Your task to perform on an android device: visit the assistant section in the google photos Image 0: 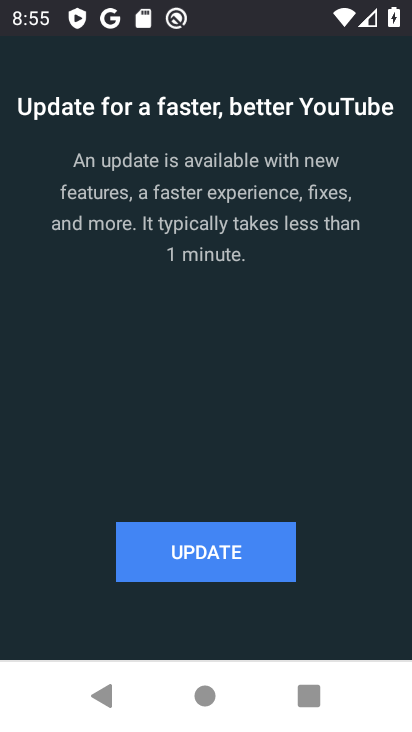
Step 0: press home button
Your task to perform on an android device: visit the assistant section in the google photos Image 1: 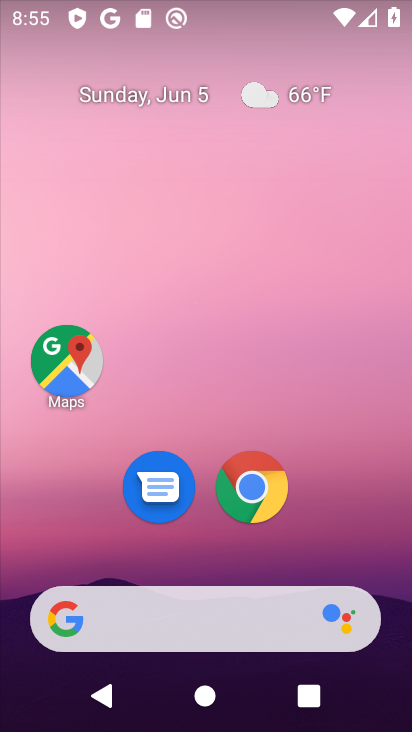
Step 1: drag from (198, 562) to (230, 68)
Your task to perform on an android device: visit the assistant section in the google photos Image 2: 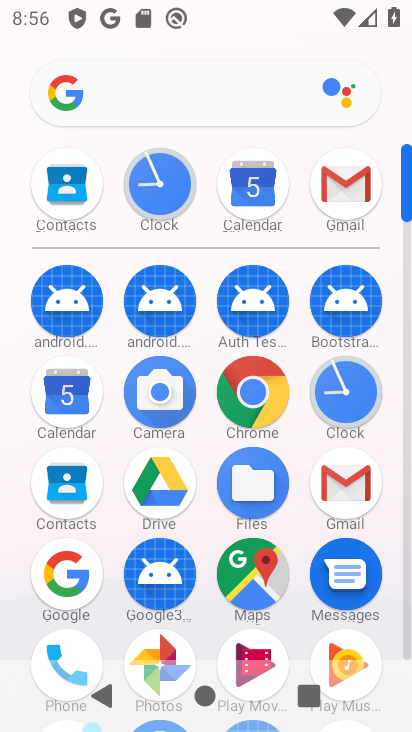
Step 2: click (168, 651)
Your task to perform on an android device: visit the assistant section in the google photos Image 3: 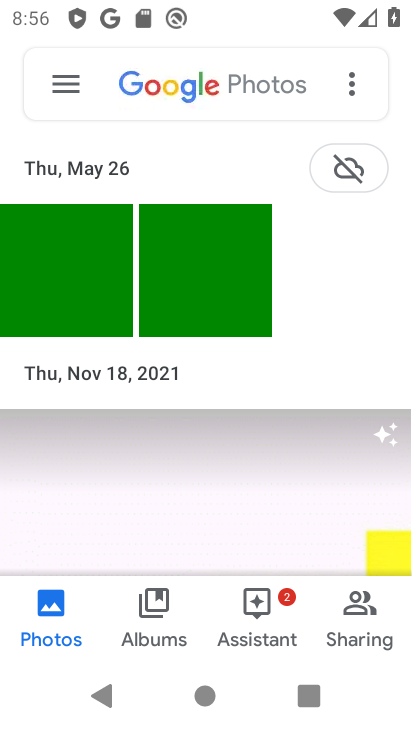
Step 3: click (259, 629)
Your task to perform on an android device: visit the assistant section in the google photos Image 4: 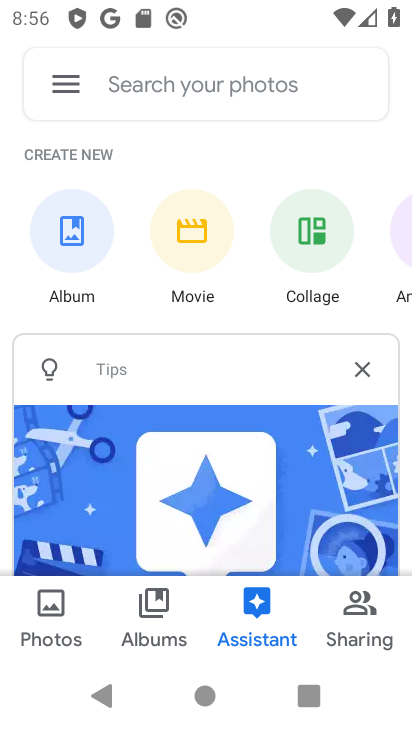
Step 4: click (49, 629)
Your task to perform on an android device: visit the assistant section in the google photos Image 5: 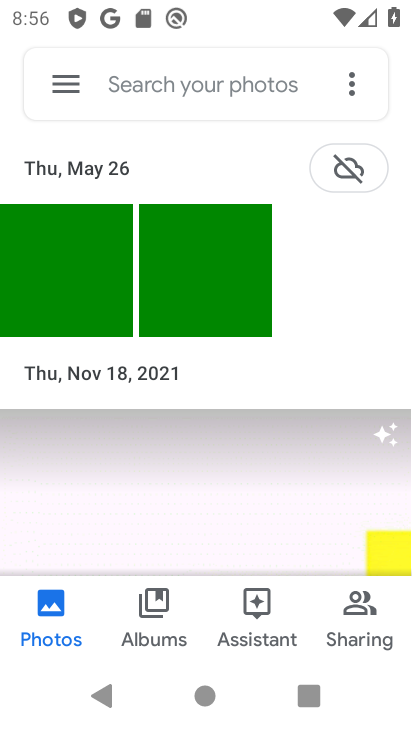
Step 5: click (250, 621)
Your task to perform on an android device: visit the assistant section in the google photos Image 6: 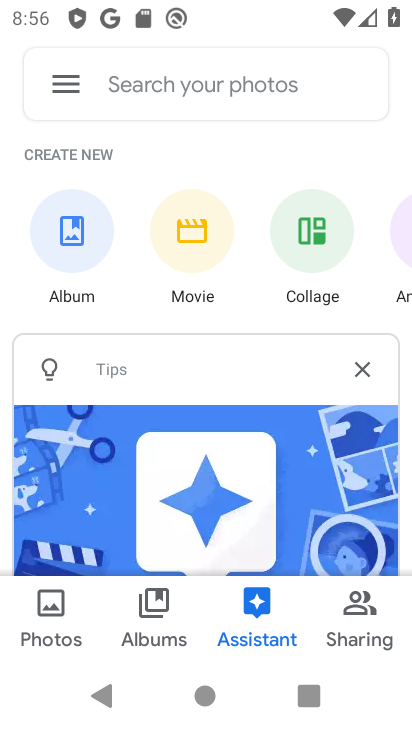
Step 6: task complete